Your task to perform on an android device: check the backup settings in the google photos Image 0: 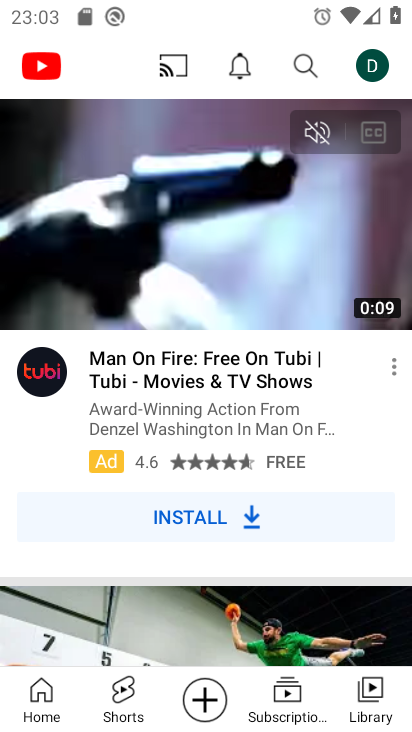
Step 0: press back button
Your task to perform on an android device: check the backup settings in the google photos Image 1: 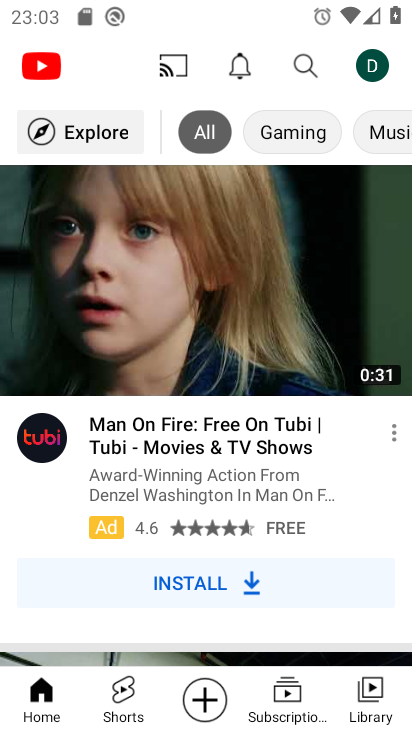
Step 1: press back button
Your task to perform on an android device: check the backup settings in the google photos Image 2: 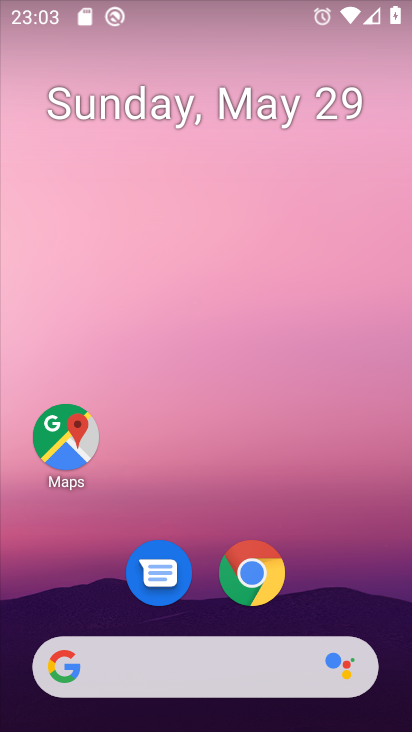
Step 2: drag from (180, 475) to (210, 2)
Your task to perform on an android device: check the backup settings in the google photos Image 3: 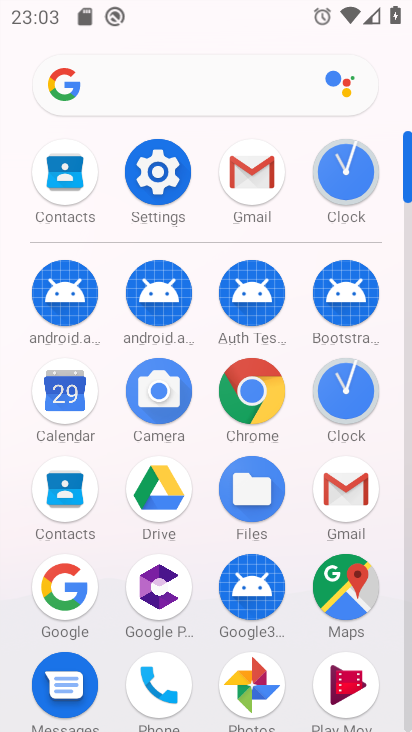
Step 3: click (261, 672)
Your task to perform on an android device: check the backup settings in the google photos Image 4: 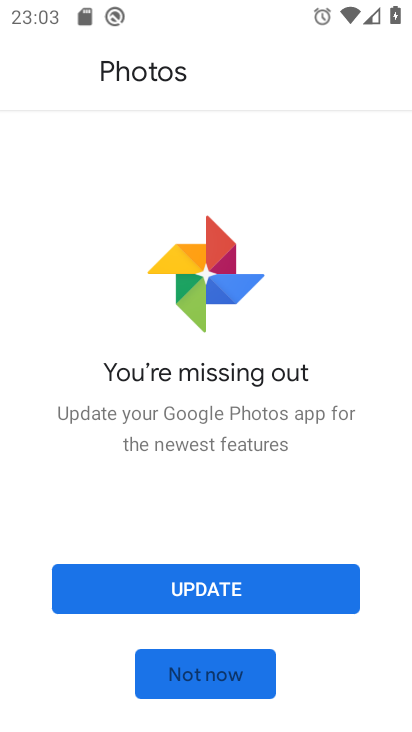
Step 4: click (194, 681)
Your task to perform on an android device: check the backup settings in the google photos Image 5: 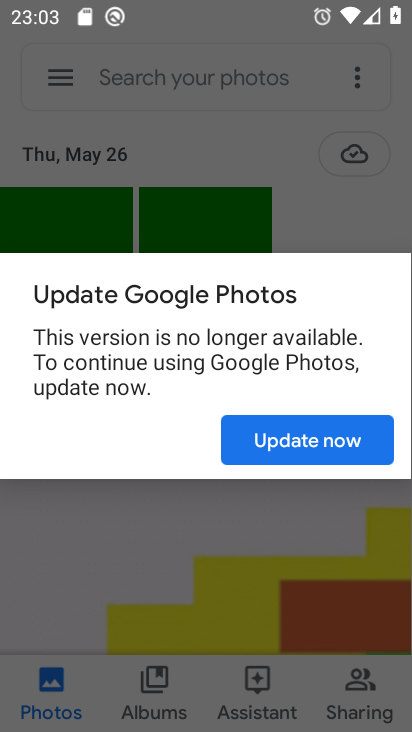
Step 5: click (345, 434)
Your task to perform on an android device: check the backup settings in the google photos Image 6: 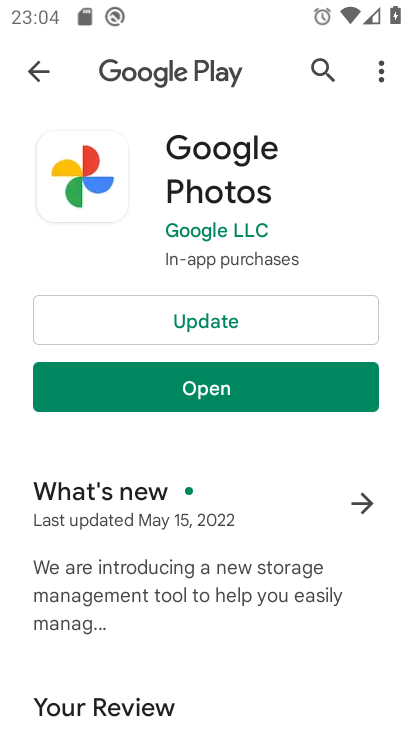
Step 6: click (295, 392)
Your task to perform on an android device: check the backup settings in the google photos Image 7: 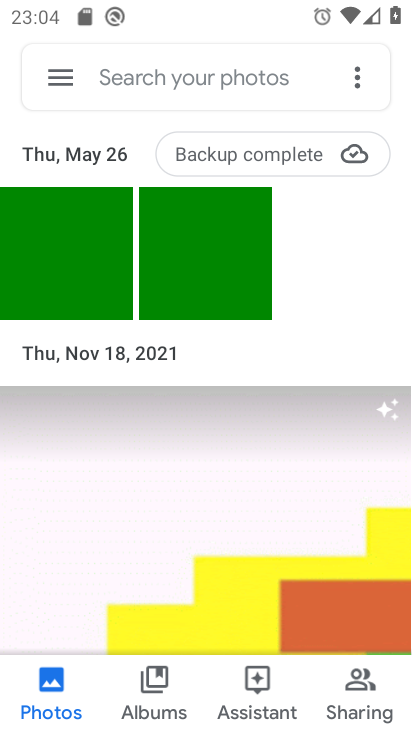
Step 7: click (59, 77)
Your task to perform on an android device: check the backup settings in the google photos Image 8: 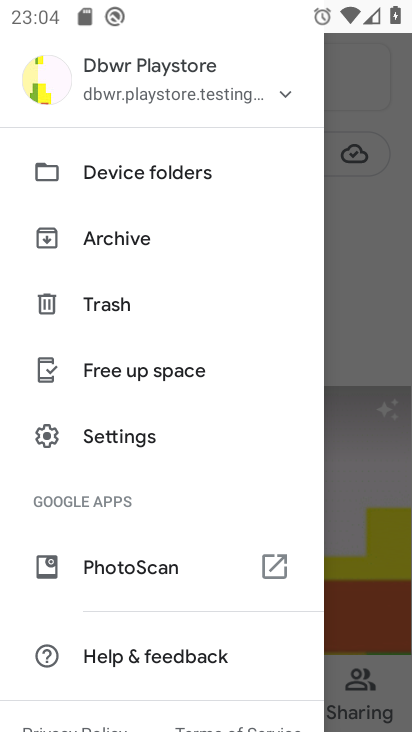
Step 8: click (119, 432)
Your task to perform on an android device: check the backup settings in the google photos Image 9: 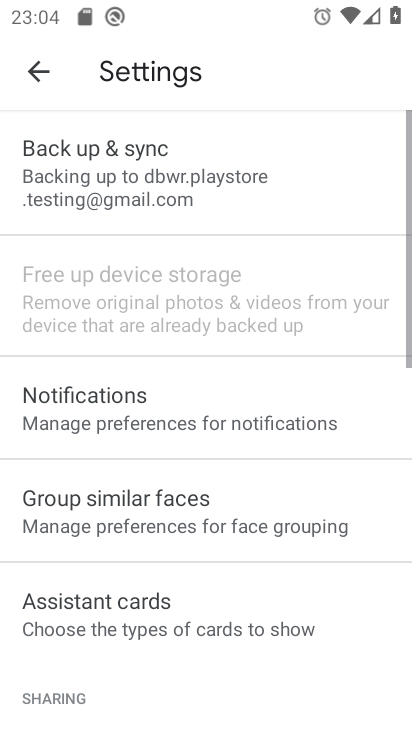
Step 9: click (138, 137)
Your task to perform on an android device: check the backup settings in the google photos Image 10: 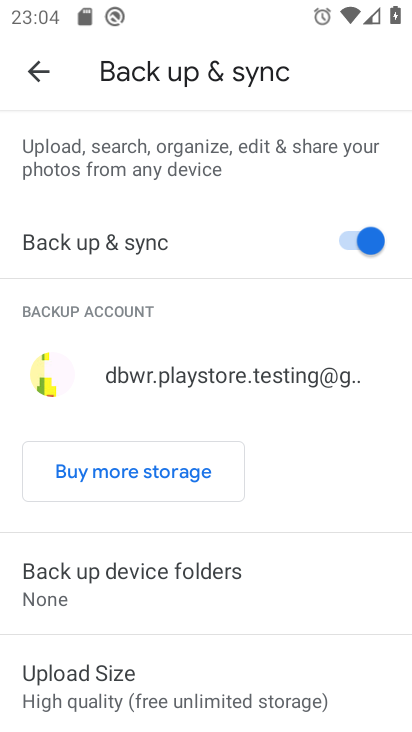
Step 10: task complete